Your task to perform on an android device: Add "sony triple a" to the cart on amazon Image 0: 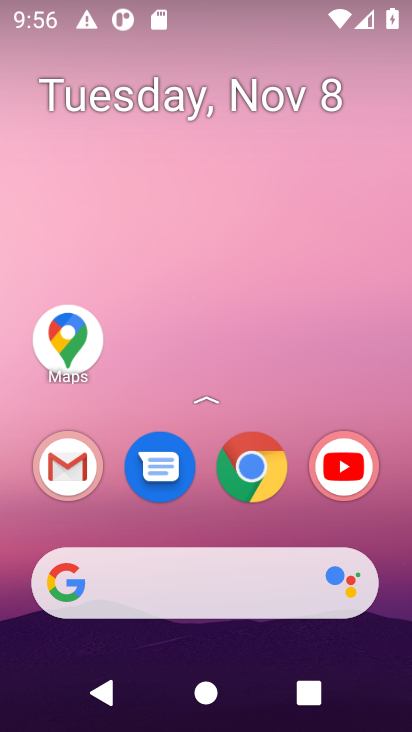
Step 0: click (262, 586)
Your task to perform on an android device: Add "sony triple a" to the cart on amazon Image 1: 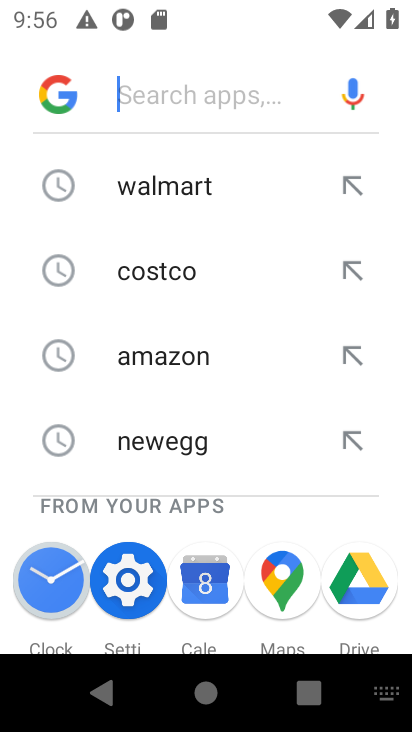
Step 1: click (221, 379)
Your task to perform on an android device: Add "sony triple a" to the cart on amazon Image 2: 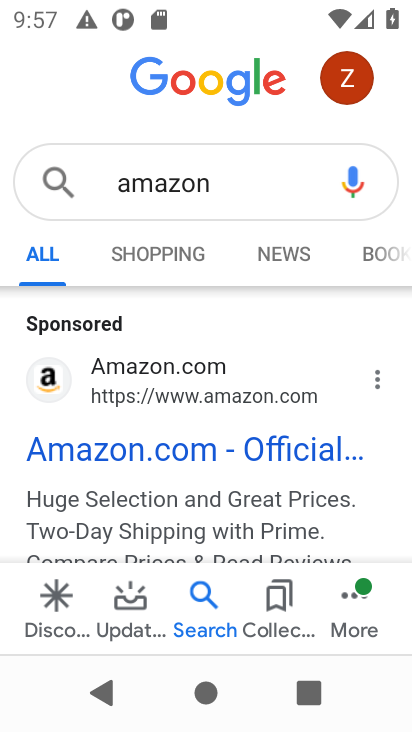
Step 2: click (81, 450)
Your task to perform on an android device: Add "sony triple a" to the cart on amazon Image 3: 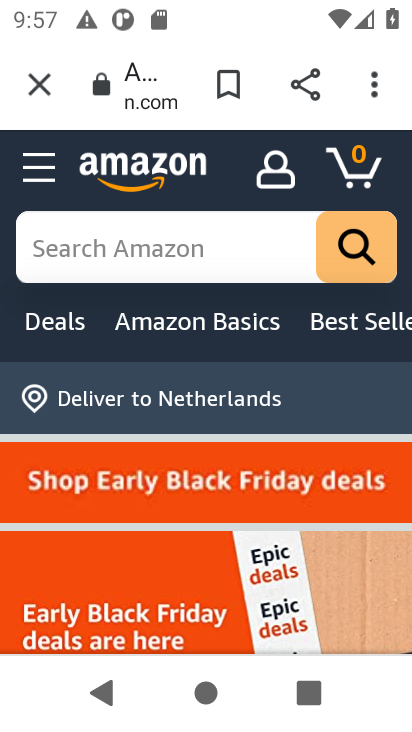
Step 3: click (195, 278)
Your task to perform on an android device: Add "sony triple a" to the cart on amazon Image 4: 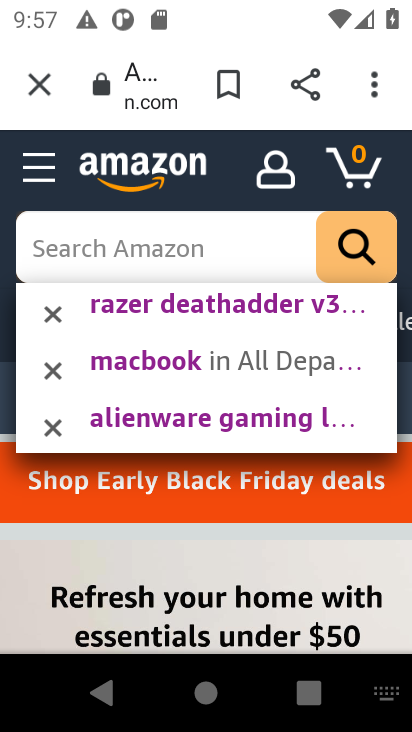
Step 4: type "sony triple aa"
Your task to perform on an android device: Add "sony triple a" to the cart on amazon Image 5: 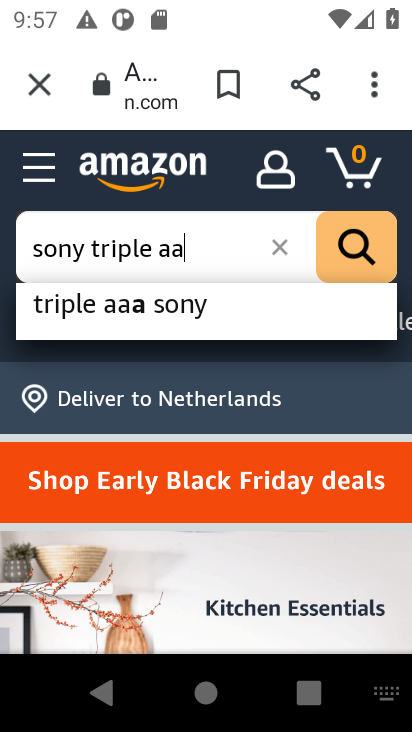
Step 5: click (188, 325)
Your task to perform on an android device: Add "sony triple a" to the cart on amazon Image 6: 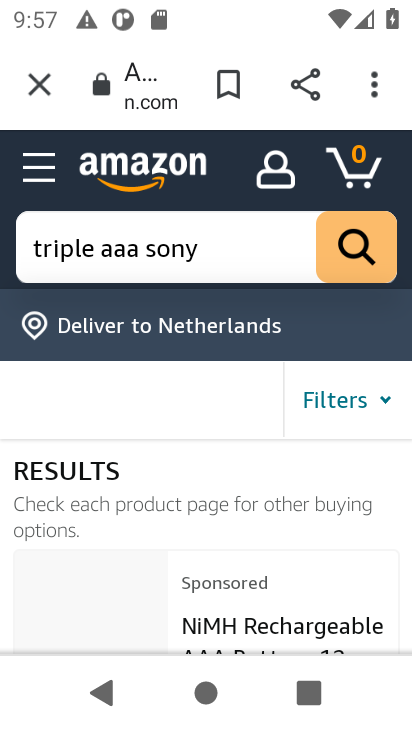
Step 6: click (369, 259)
Your task to perform on an android device: Add "sony triple a" to the cart on amazon Image 7: 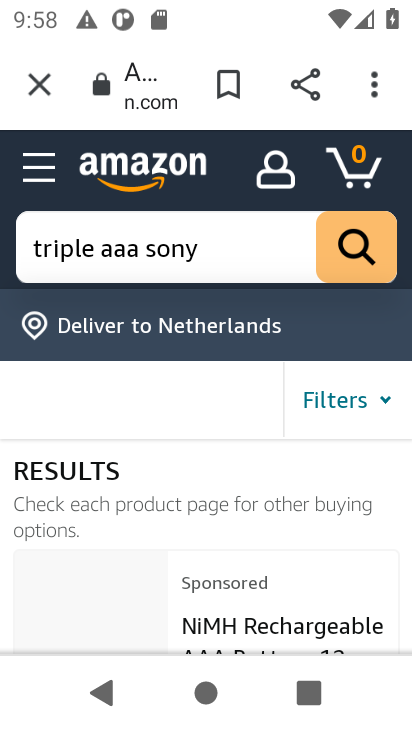
Step 7: task complete